Your task to perform on an android device: What's on my calendar today? Image 0: 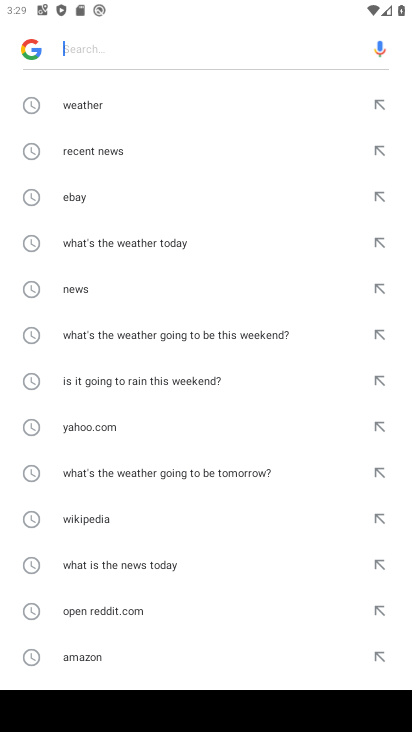
Step 0: task impossible